Your task to perform on an android device: manage bookmarks in the chrome app Image 0: 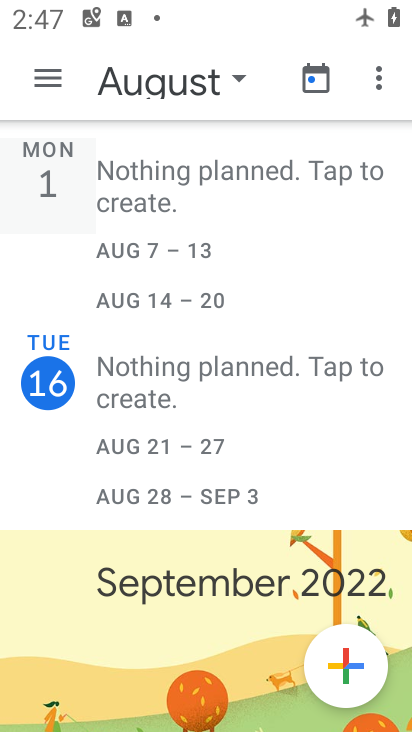
Step 0: press home button
Your task to perform on an android device: manage bookmarks in the chrome app Image 1: 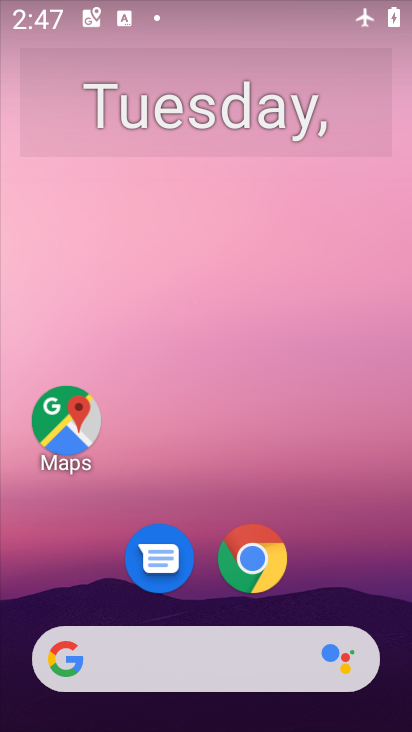
Step 1: click (242, 553)
Your task to perform on an android device: manage bookmarks in the chrome app Image 2: 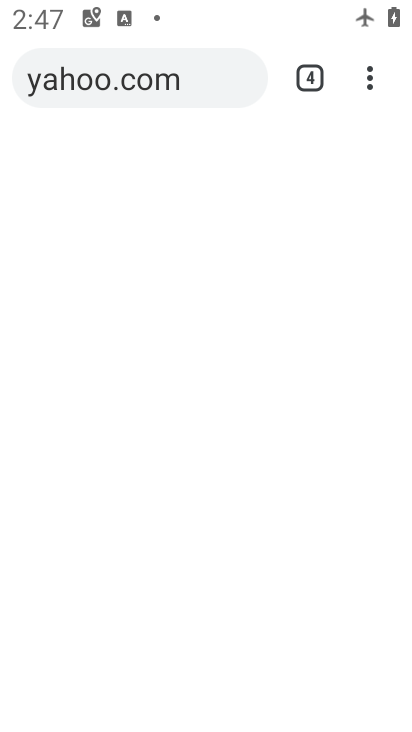
Step 2: click (364, 81)
Your task to perform on an android device: manage bookmarks in the chrome app Image 3: 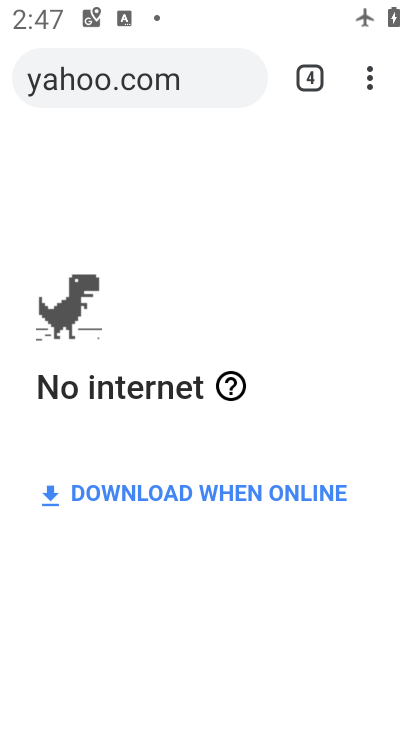
Step 3: drag from (370, 84) to (145, 293)
Your task to perform on an android device: manage bookmarks in the chrome app Image 4: 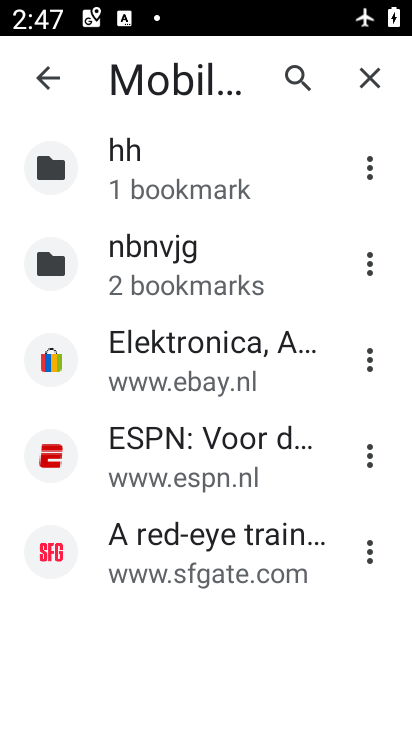
Step 4: click (359, 444)
Your task to perform on an android device: manage bookmarks in the chrome app Image 5: 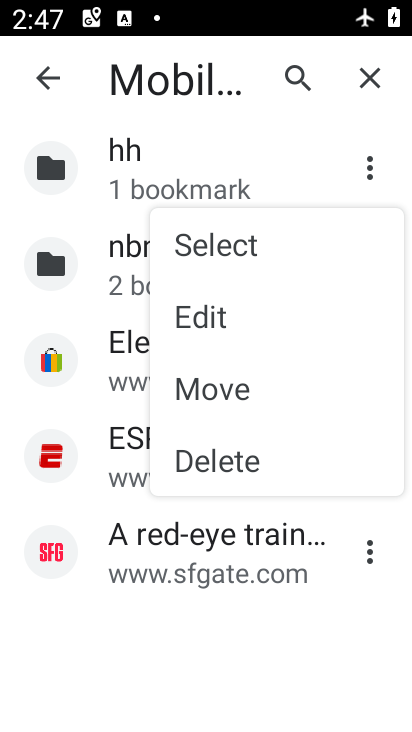
Step 5: click (221, 470)
Your task to perform on an android device: manage bookmarks in the chrome app Image 6: 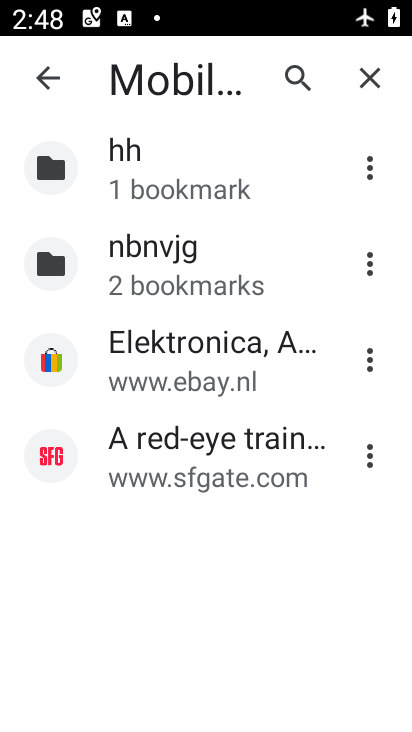
Step 6: task complete